Your task to perform on an android device: delete the emails in spam in the gmail app Image 0: 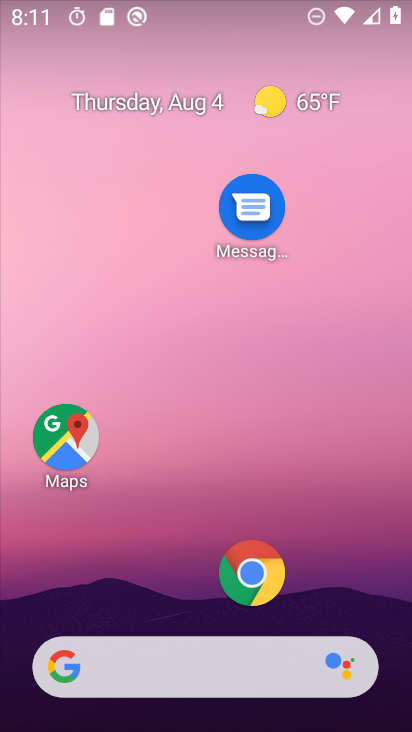
Step 0: press home button
Your task to perform on an android device: delete the emails in spam in the gmail app Image 1: 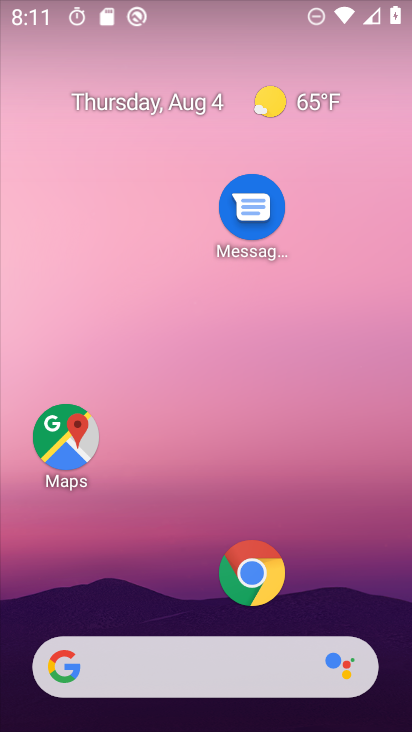
Step 1: drag from (142, 609) to (202, 15)
Your task to perform on an android device: delete the emails in spam in the gmail app Image 2: 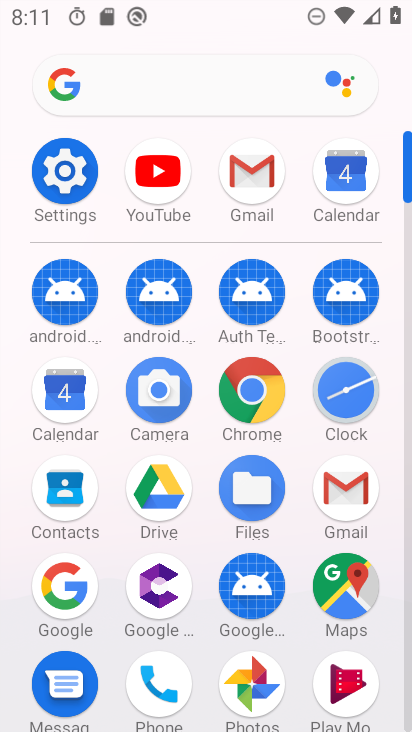
Step 2: click (268, 171)
Your task to perform on an android device: delete the emails in spam in the gmail app Image 3: 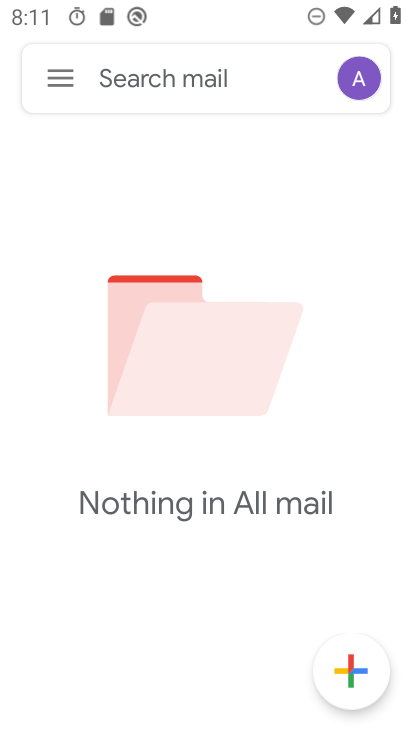
Step 3: click (42, 68)
Your task to perform on an android device: delete the emails in spam in the gmail app Image 4: 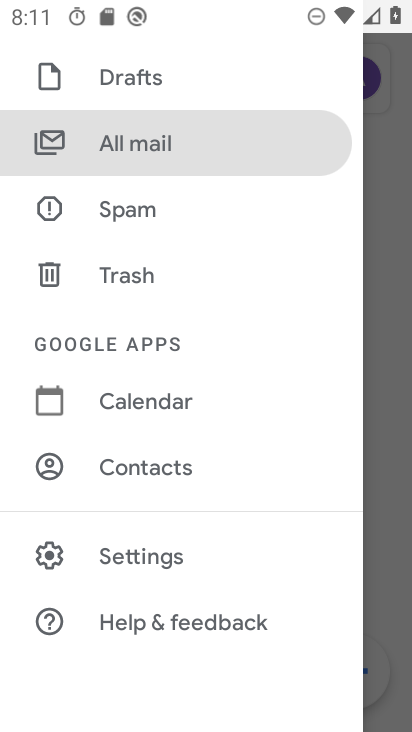
Step 4: click (145, 216)
Your task to perform on an android device: delete the emails in spam in the gmail app Image 5: 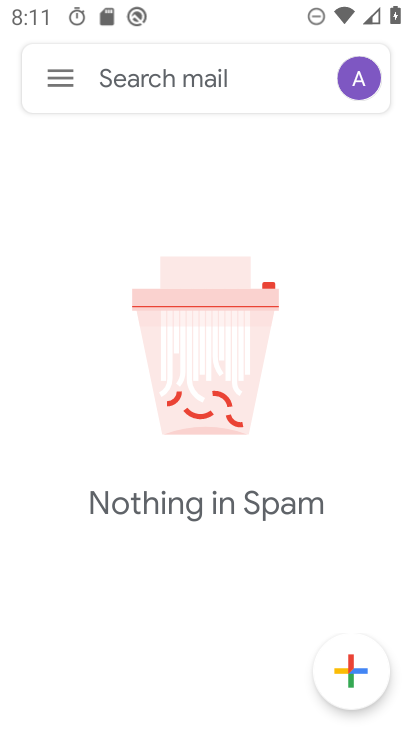
Step 5: task complete